Your task to perform on an android device: delete the emails in spam in the gmail app Image 0: 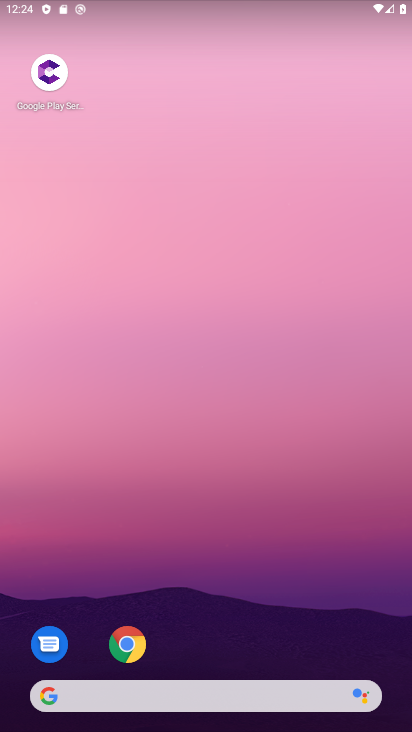
Step 0: drag from (61, 575) to (307, 63)
Your task to perform on an android device: delete the emails in spam in the gmail app Image 1: 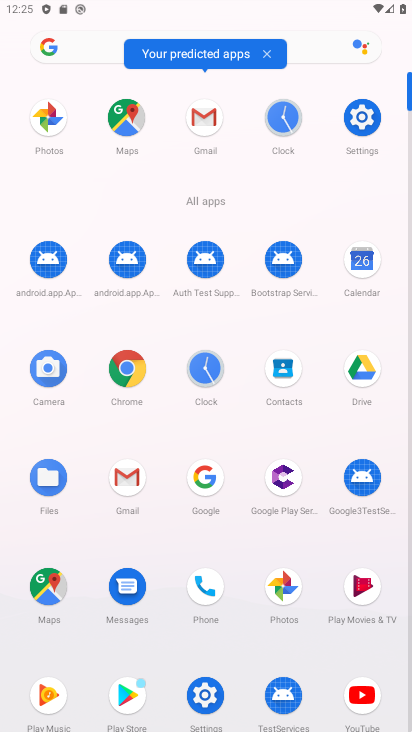
Step 1: click (121, 478)
Your task to perform on an android device: delete the emails in spam in the gmail app Image 2: 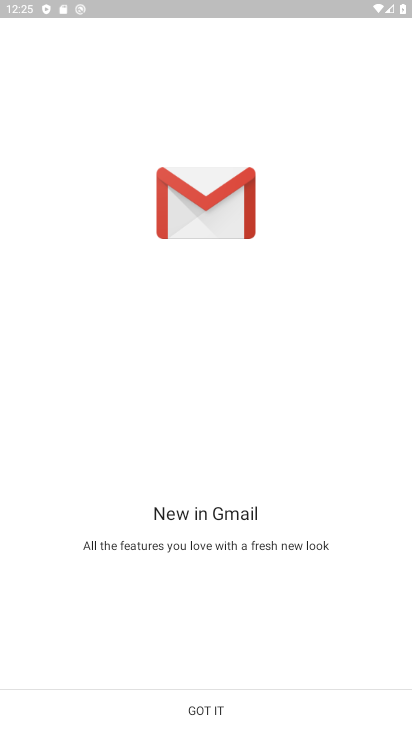
Step 2: click (180, 701)
Your task to perform on an android device: delete the emails in spam in the gmail app Image 3: 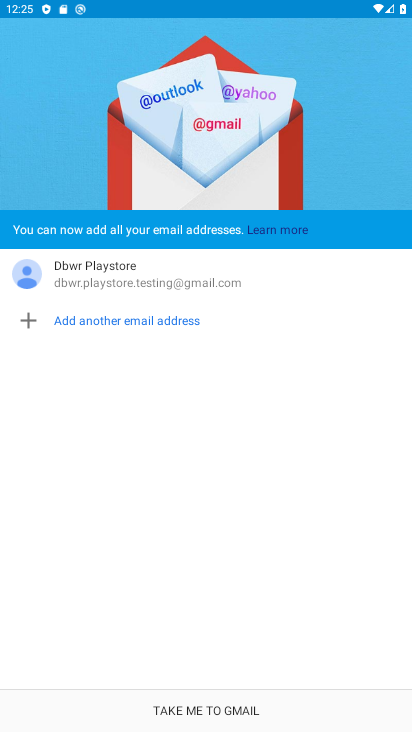
Step 3: click (233, 712)
Your task to perform on an android device: delete the emails in spam in the gmail app Image 4: 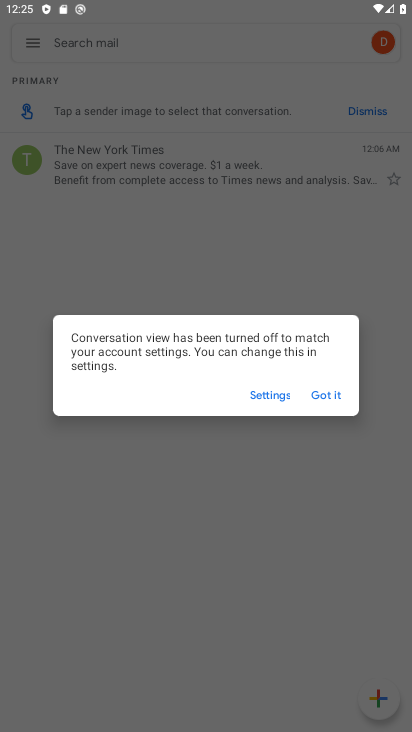
Step 4: click (338, 387)
Your task to perform on an android device: delete the emails in spam in the gmail app Image 5: 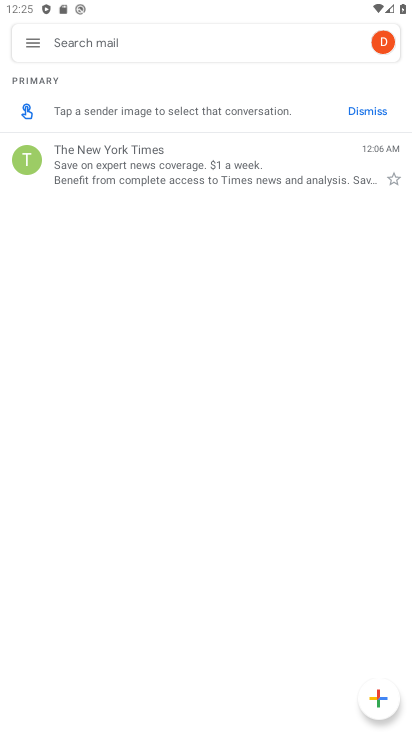
Step 5: click (33, 45)
Your task to perform on an android device: delete the emails in spam in the gmail app Image 6: 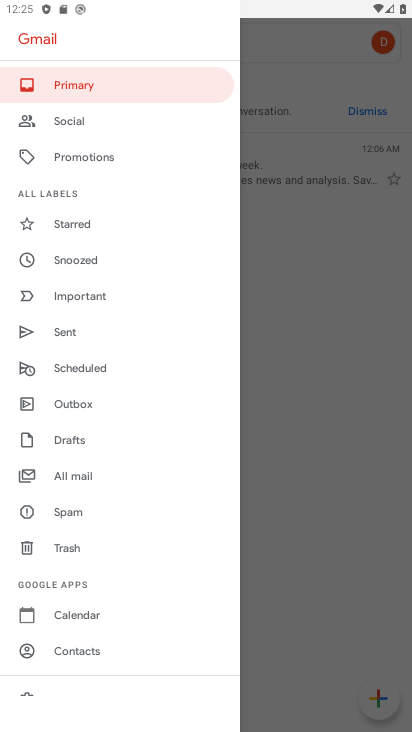
Step 6: click (57, 510)
Your task to perform on an android device: delete the emails in spam in the gmail app Image 7: 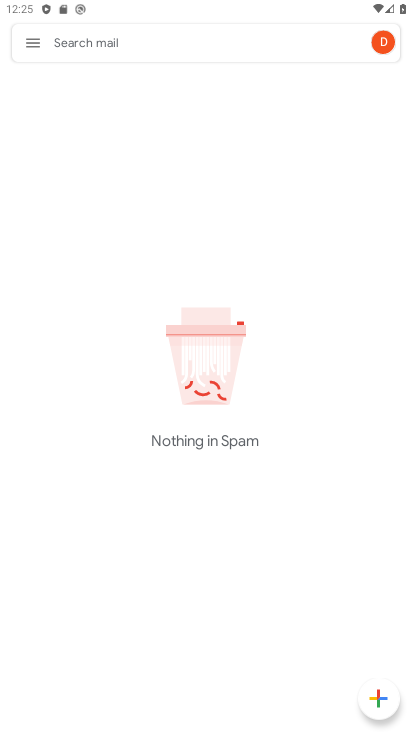
Step 7: task complete